Your task to perform on an android device: Set the phone to "Do not disturb". Image 0: 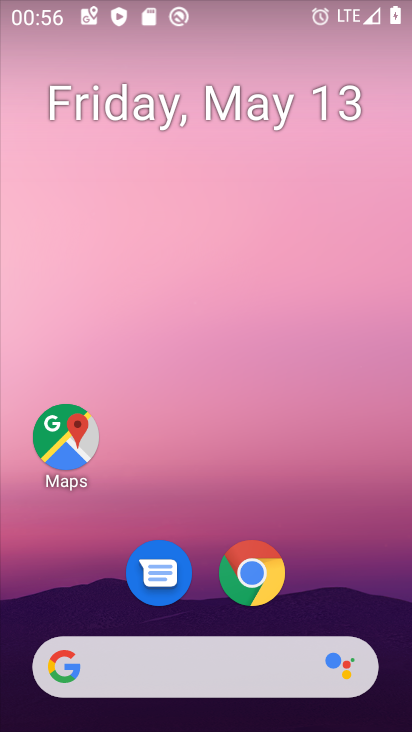
Step 0: drag from (196, 731) to (219, 11)
Your task to perform on an android device: Set the phone to "Do not disturb". Image 1: 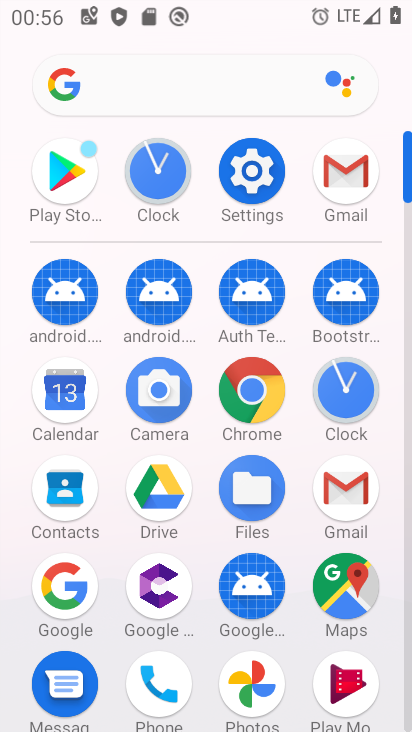
Step 1: click (263, 179)
Your task to perform on an android device: Set the phone to "Do not disturb". Image 2: 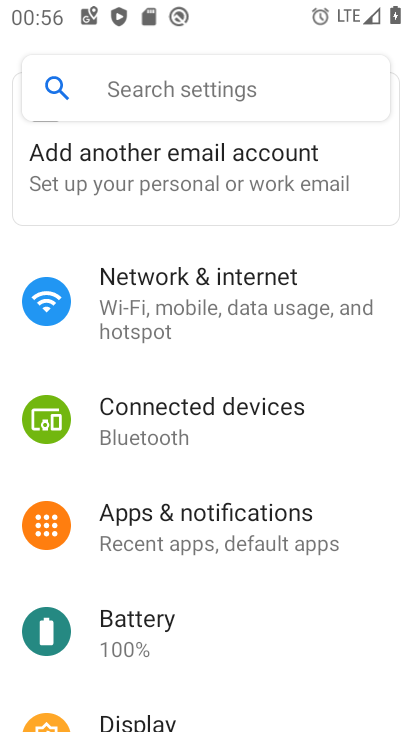
Step 2: drag from (309, 668) to (264, 76)
Your task to perform on an android device: Set the phone to "Do not disturb". Image 3: 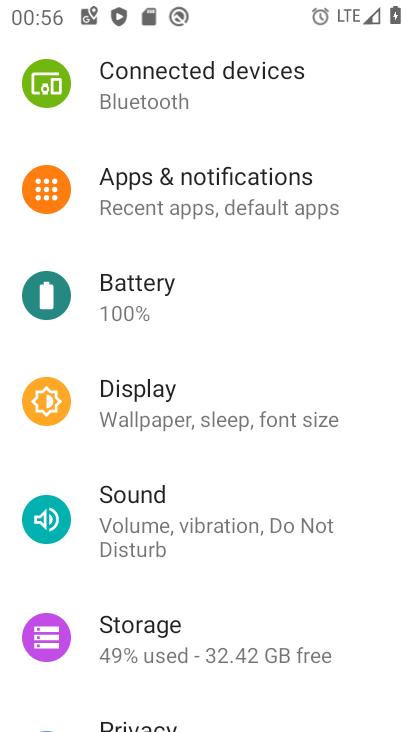
Step 3: click (295, 522)
Your task to perform on an android device: Set the phone to "Do not disturb". Image 4: 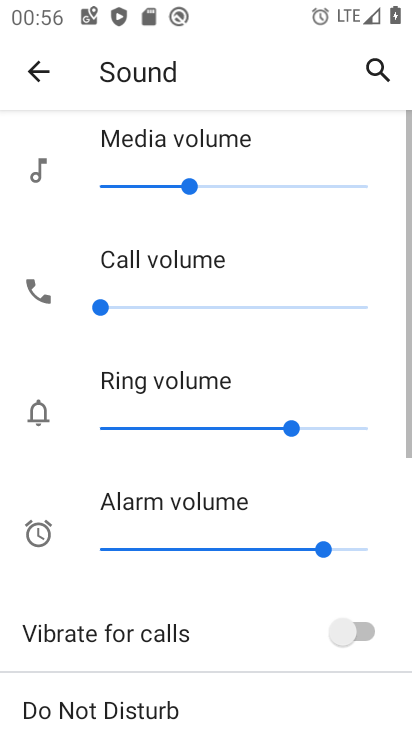
Step 4: drag from (262, 643) to (288, 191)
Your task to perform on an android device: Set the phone to "Do not disturb". Image 5: 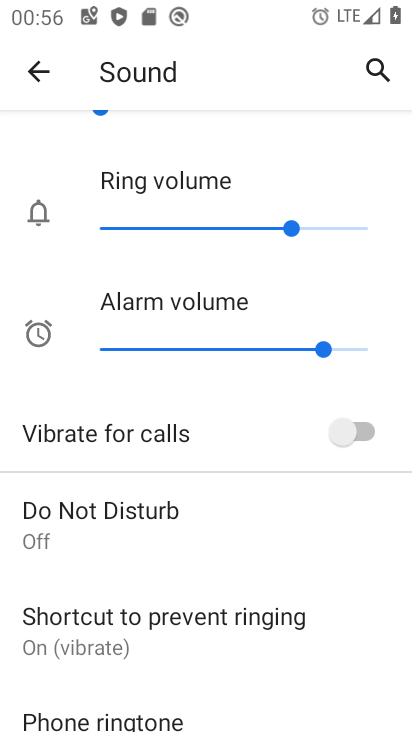
Step 5: click (140, 527)
Your task to perform on an android device: Set the phone to "Do not disturb". Image 6: 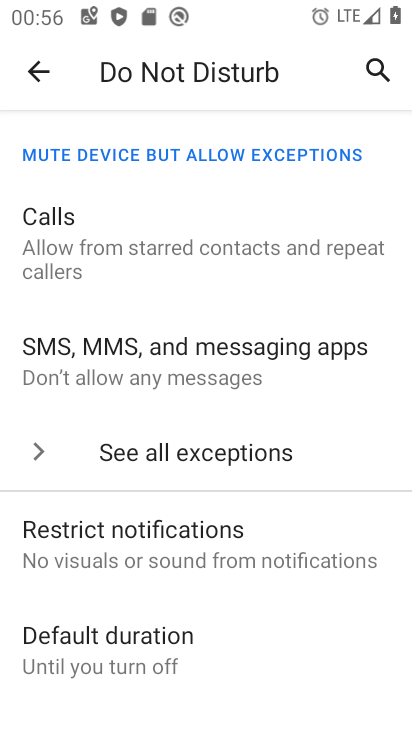
Step 6: drag from (281, 667) to (270, 140)
Your task to perform on an android device: Set the phone to "Do not disturb". Image 7: 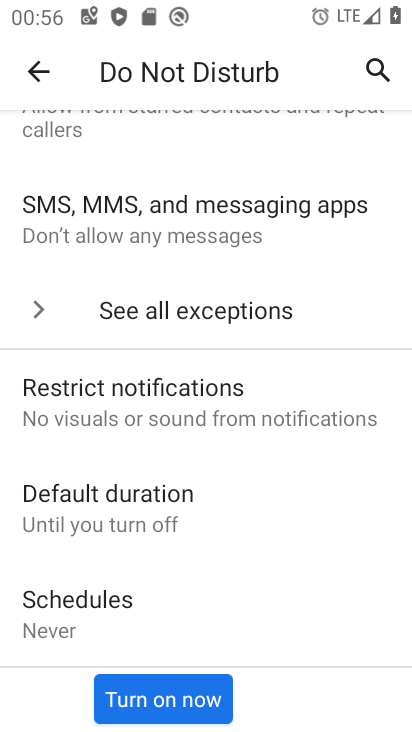
Step 7: click (154, 716)
Your task to perform on an android device: Set the phone to "Do not disturb". Image 8: 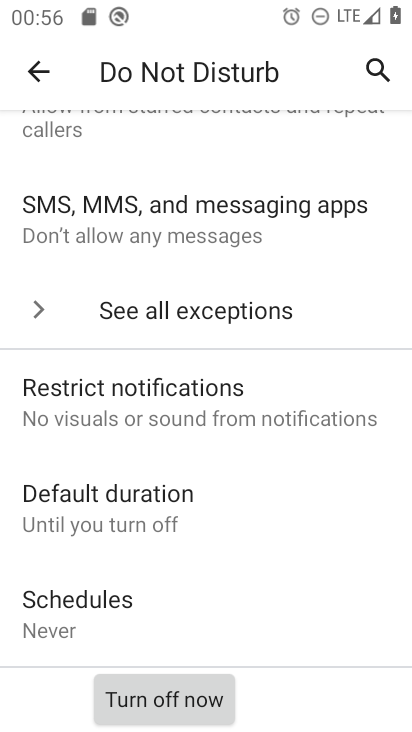
Step 8: click (257, 69)
Your task to perform on an android device: Set the phone to "Do not disturb". Image 9: 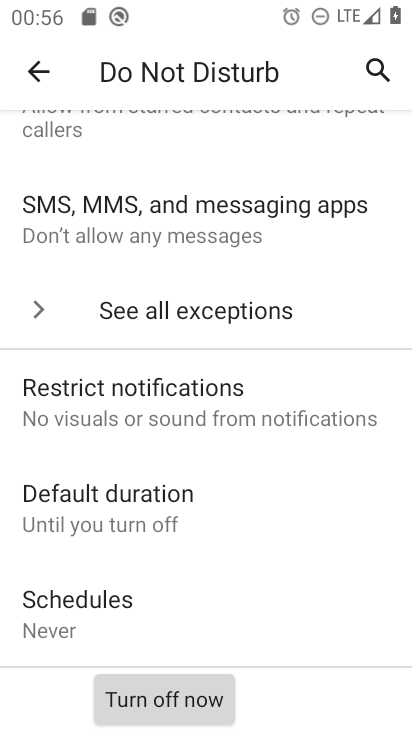
Step 9: task complete